Your task to perform on an android device: Check the weather Image 0: 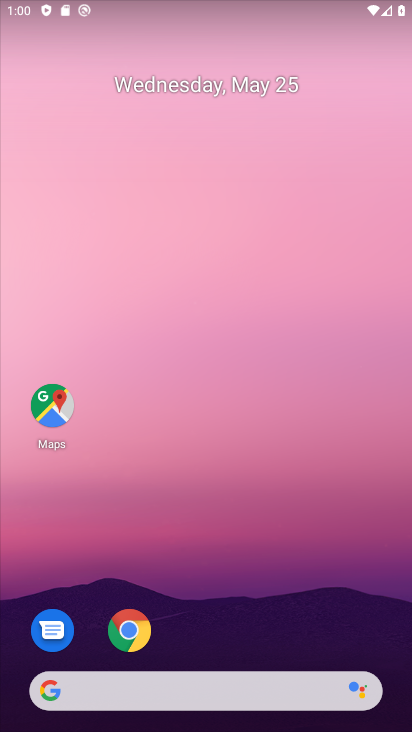
Step 0: drag from (4, 236) to (371, 369)
Your task to perform on an android device: Check the weather Image 1: 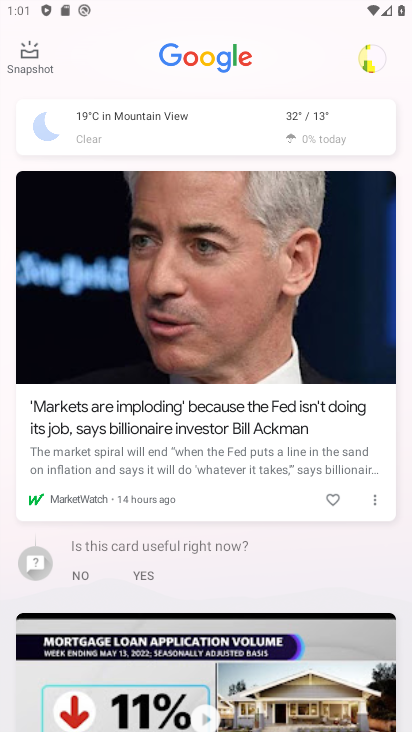
Step 1: click (142, 133)
Your task to perform on an android device: Check the weather Image 2: 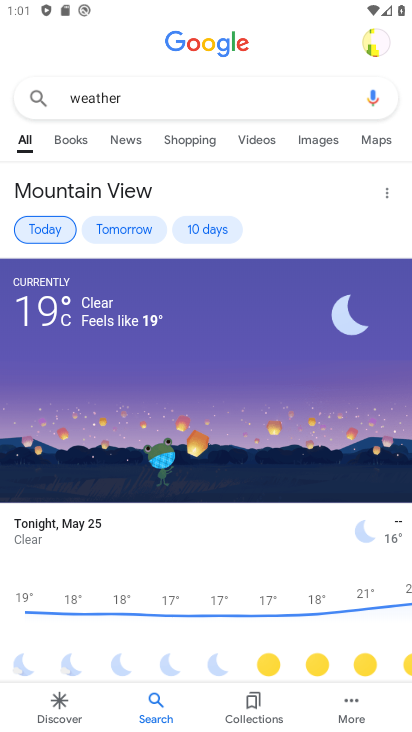
Step 2: task complete